Your task to perform on an android device: Search for hotels in Paris Image 0: 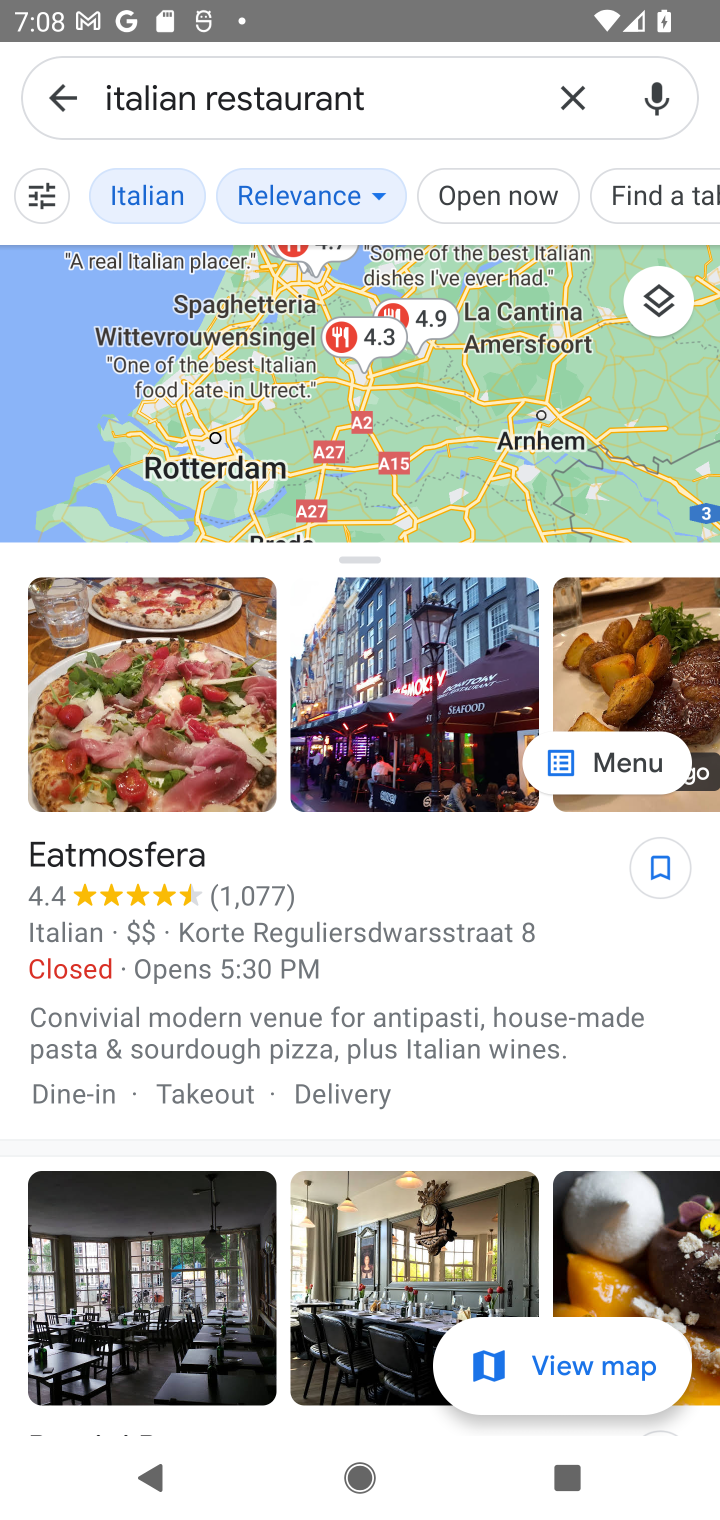
Step 0: press home button
Your task to perform on an android device: Search for hotels in Paris Image 1: 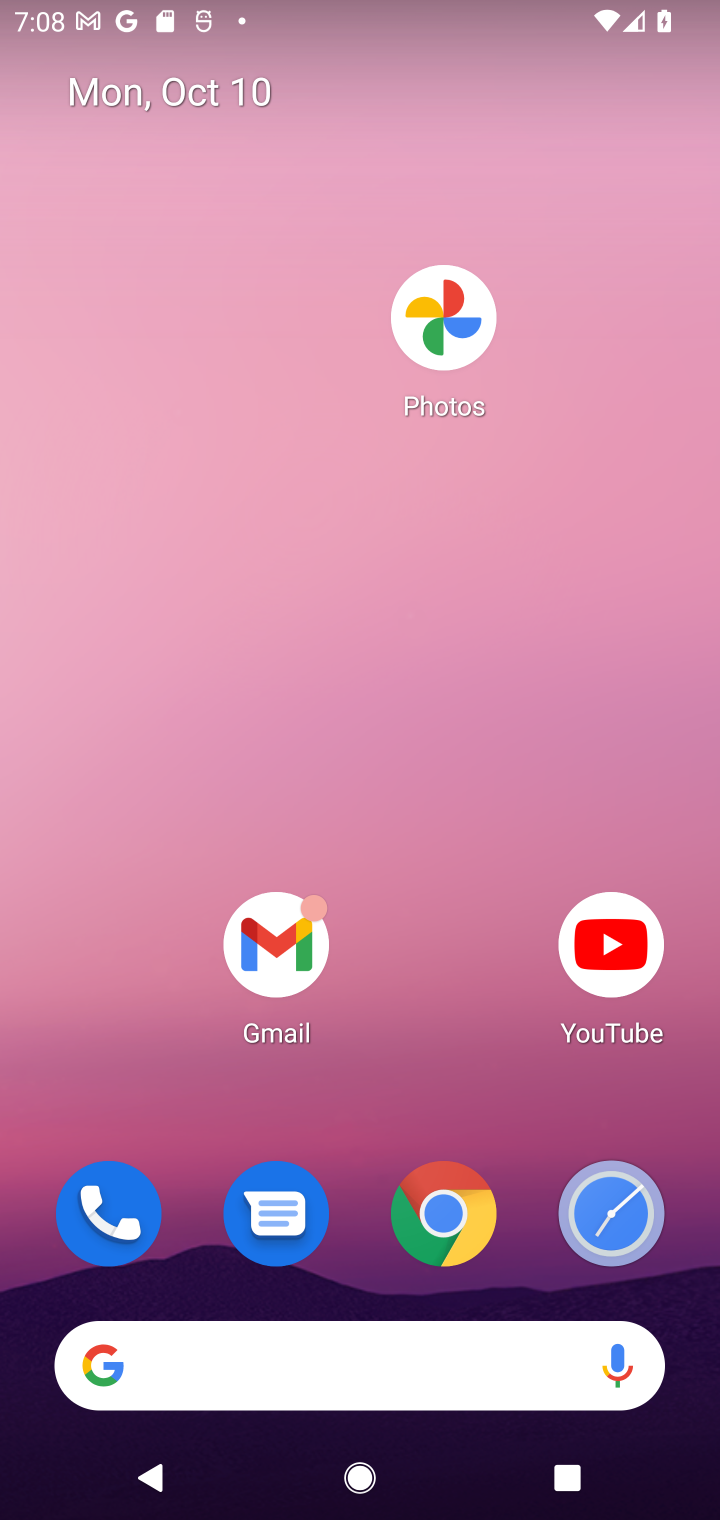
Step 1: click (212, 1364)
Your task to perform on an android device: Search for hotels in Paris Image 2: 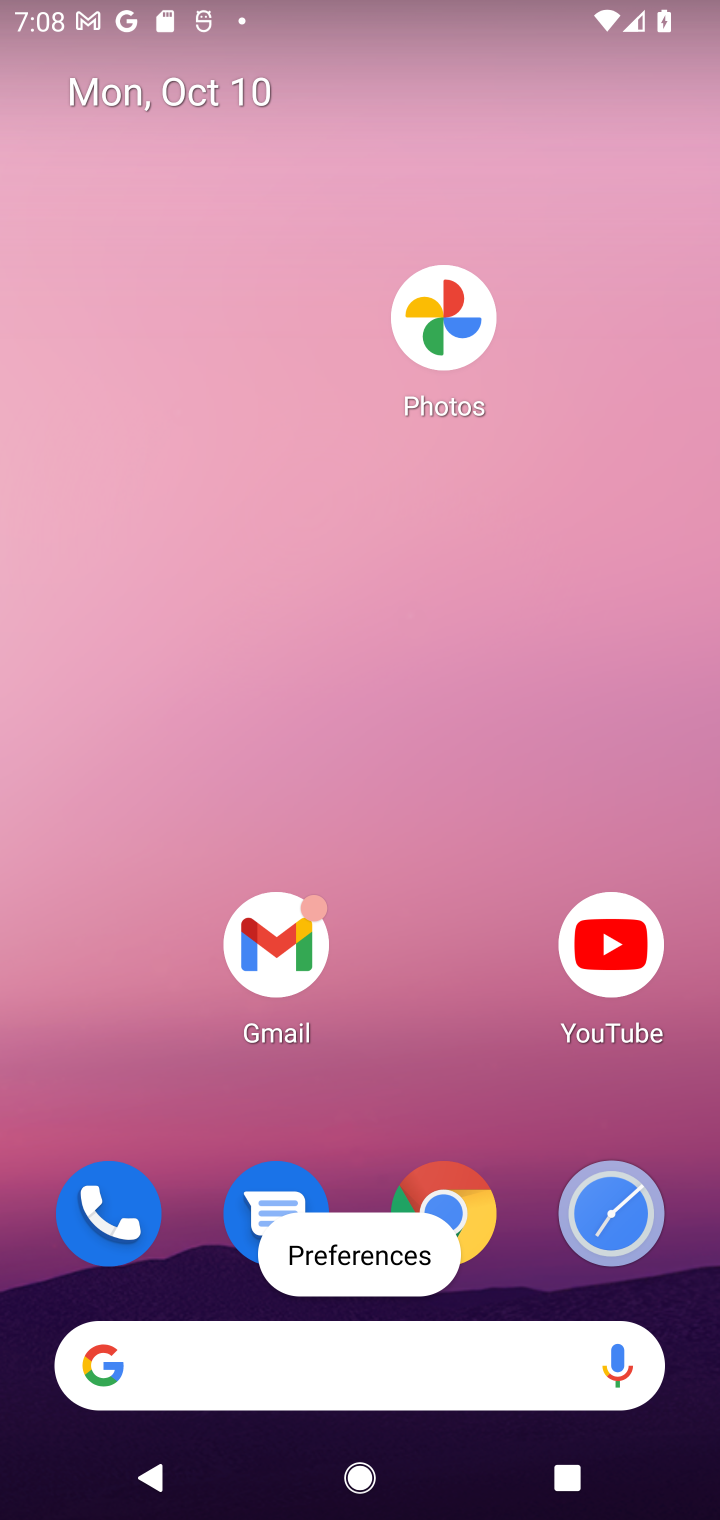
Step 2: click (209, 1366)
Your task to perform on an android device: Search for hotels in Paris Image 3: 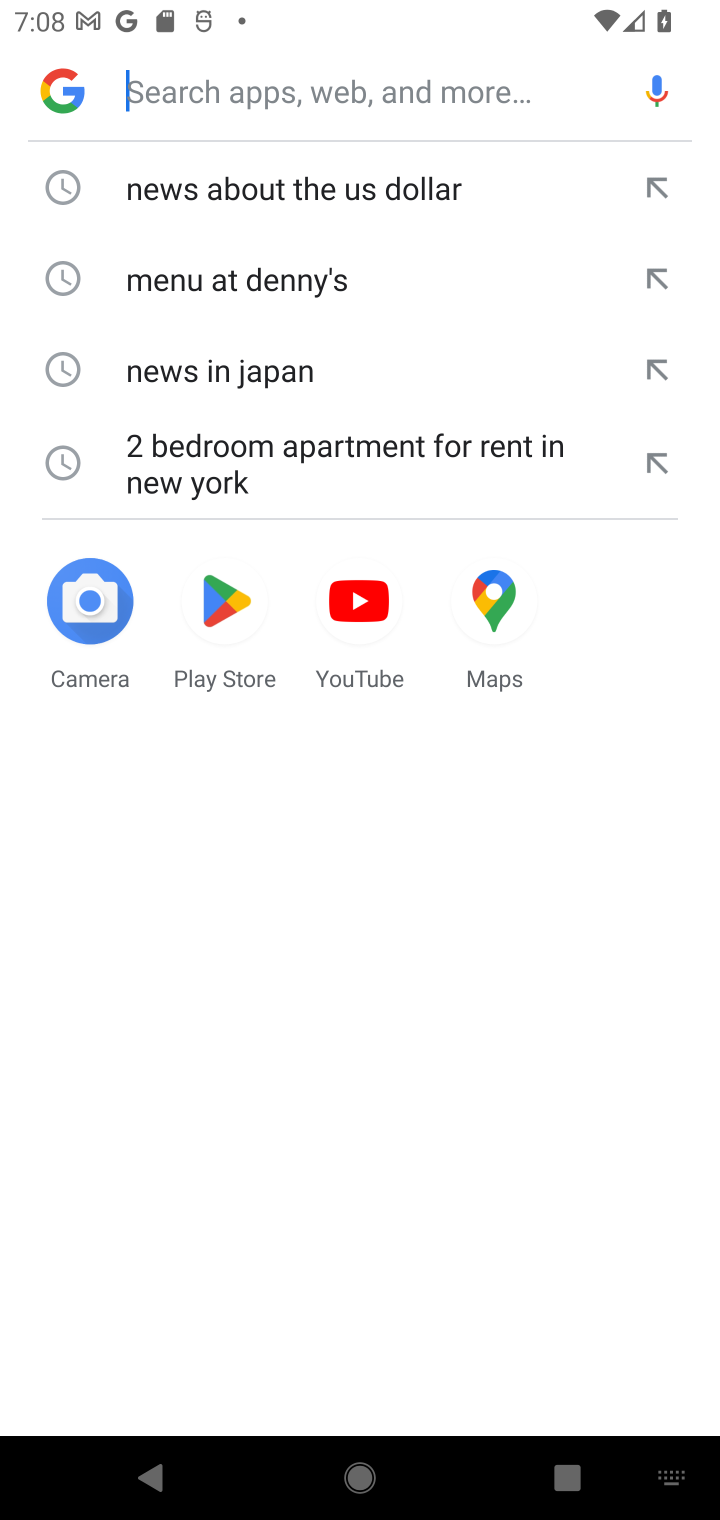
Step 3: type "hotels in Paris"
Your task to perform on an android device: Search for hotels in Paris Image 4: 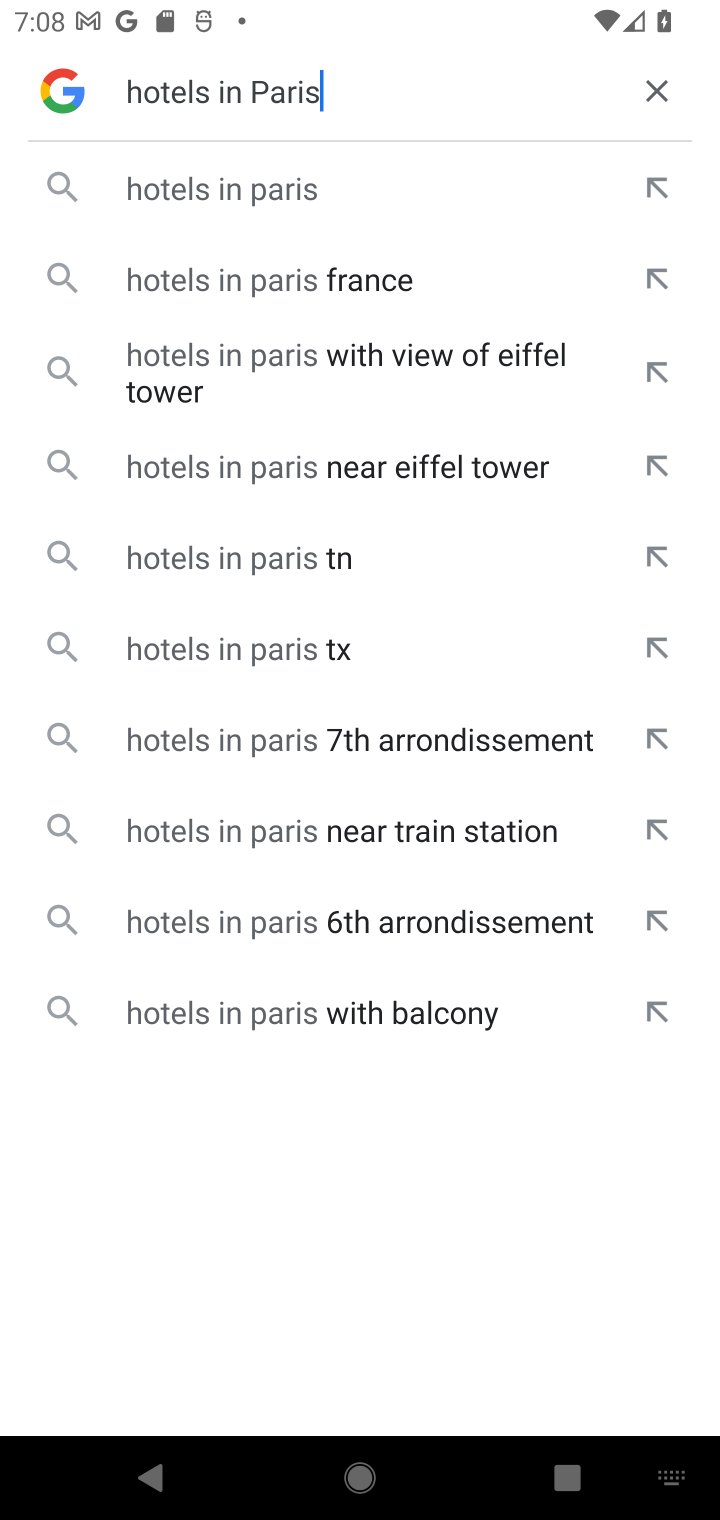
Step 4: click (215, 182)
Your task to perform on an android device: Search for hotels in Paris Image 5: 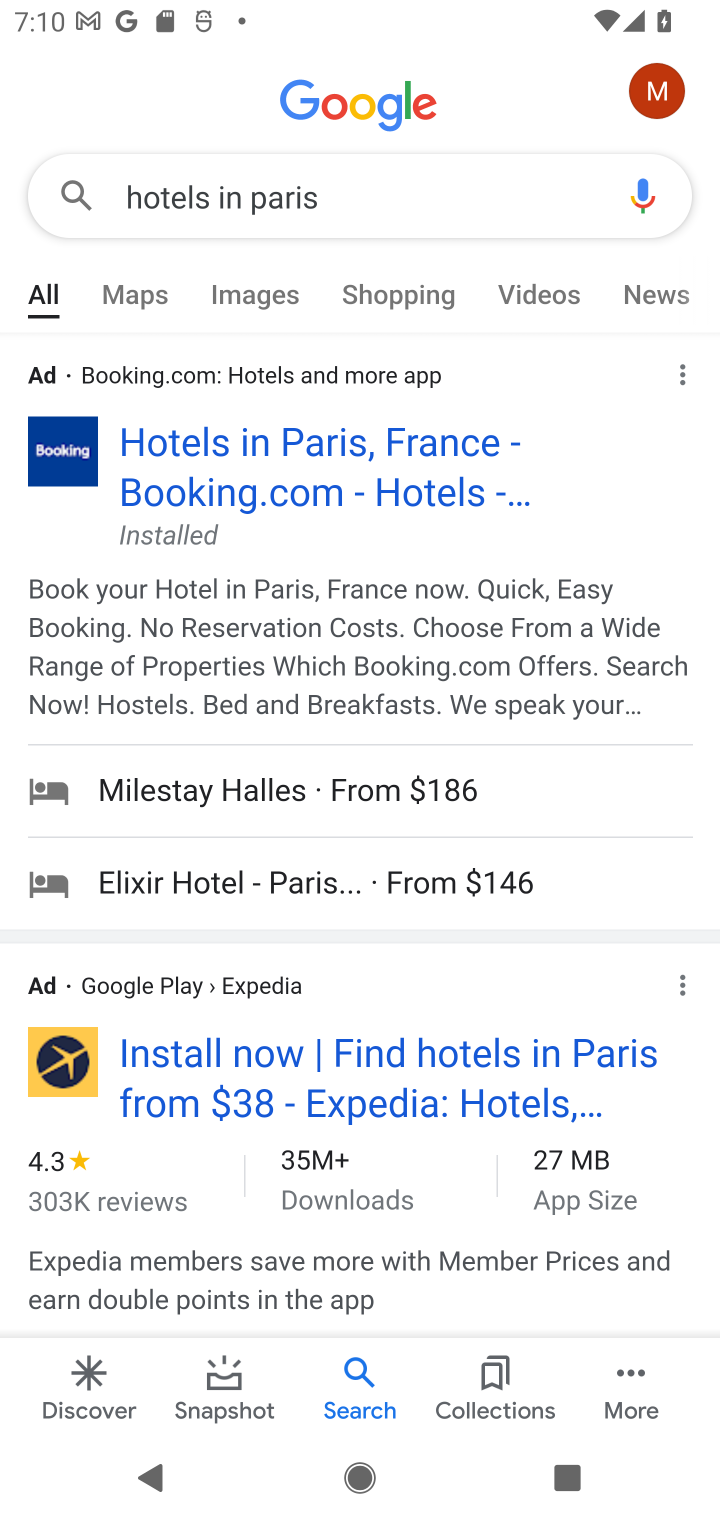
Step 5: task complete